Your task to perform on an android device: Open Youtube and go to "Your channel" Image 0: 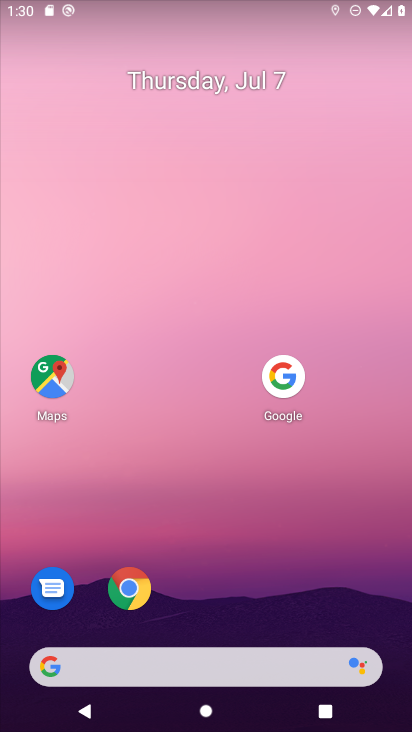
Step 0: drag from (249, 612) to (403, 206)
Your task to perform on an android device: Open Youtube and go to "Your channel" Image 1: 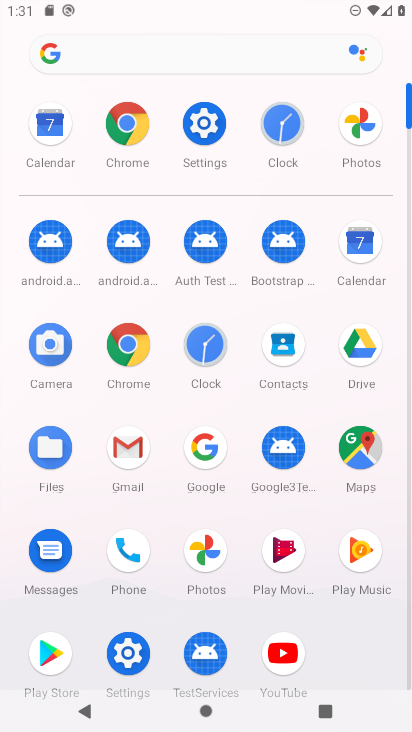
Step 1: click (284, 648)
Your task to perform on an android device: Open Youtube and go to "Your channel" Image 2: 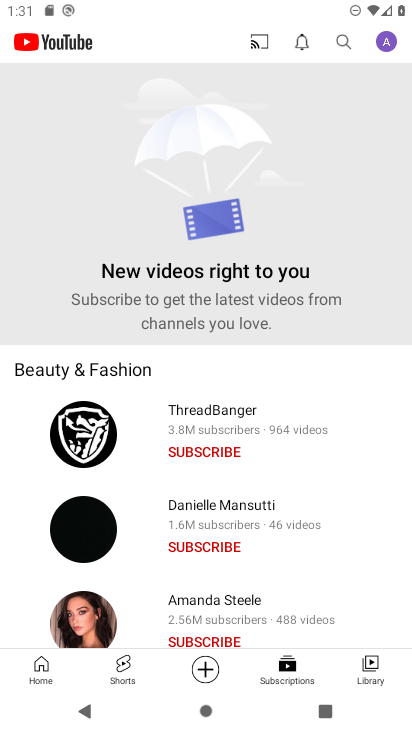
Step 2: click (384, 43)
Your task to perform on an android device: Open Youtube and go to "Your channel" Image 3: 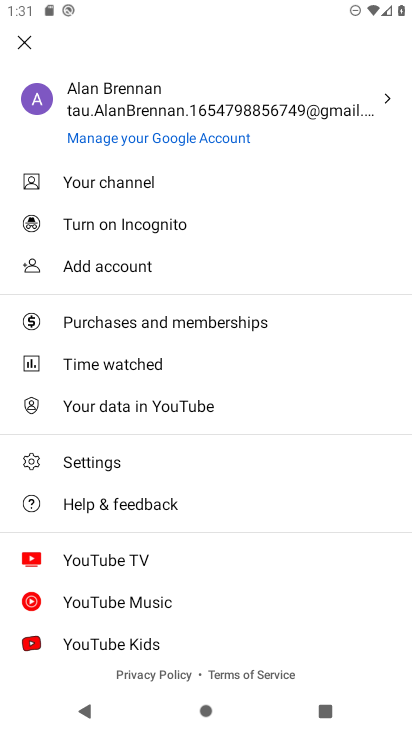
Step 3: click (157, 175)
Your task to perform on an android device: Open Youtube and go to "Your channel" Image 4: 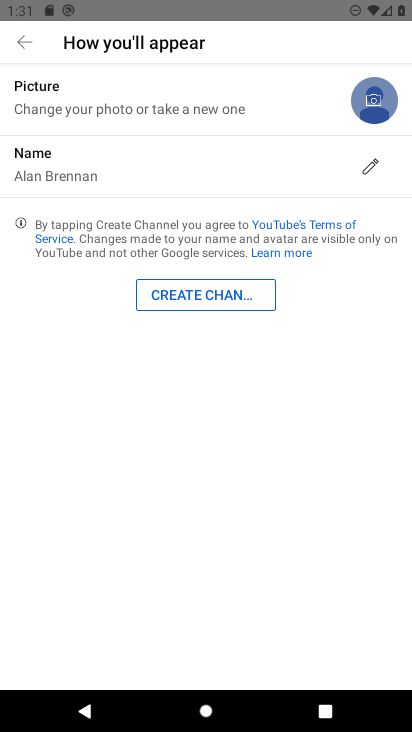
Step 4: task complete